Your task to perform on an android device: open app "NewsBreak: Local News & Alerts" (install if not already installed) Image 0: 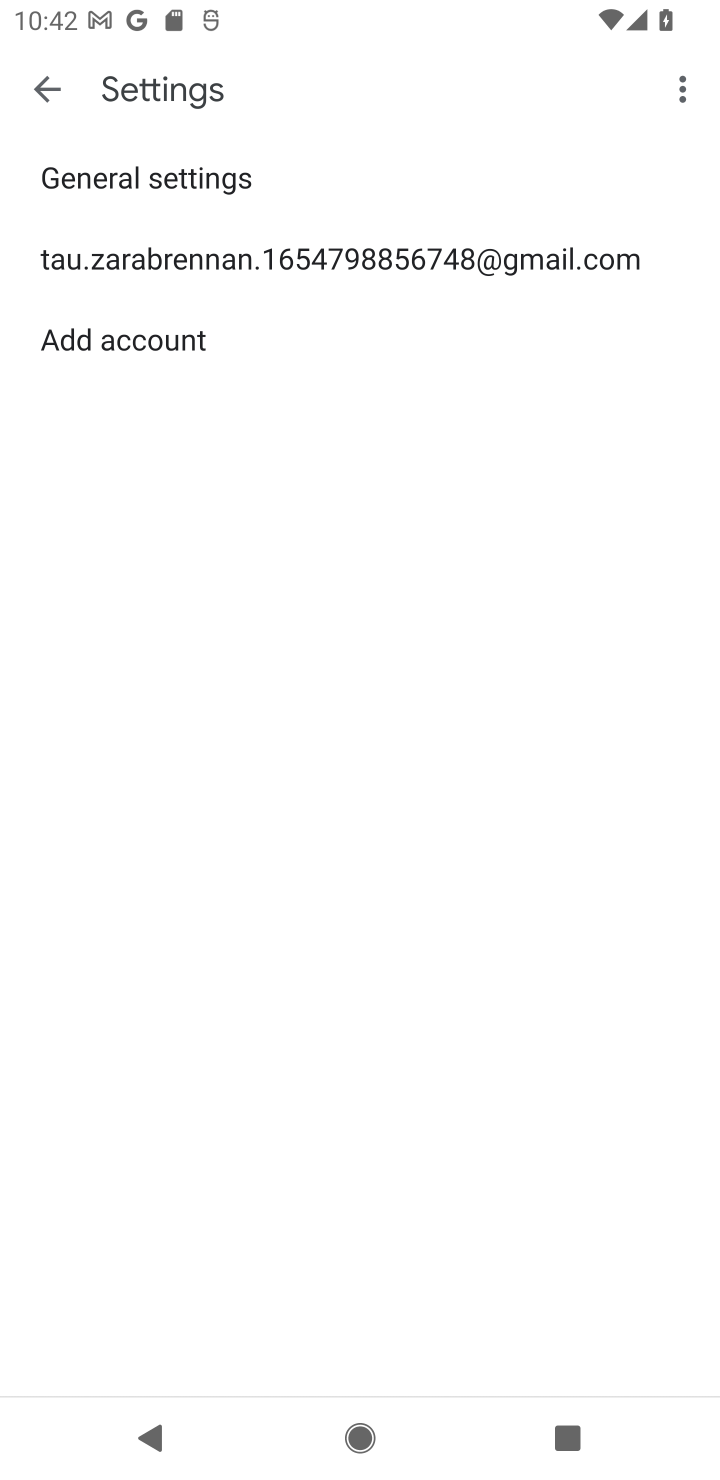
Step 0: press home button
Your task to perform on an android device: open app "NewsBreak: Local News & Alerts" (install if not already installed) Image 1: 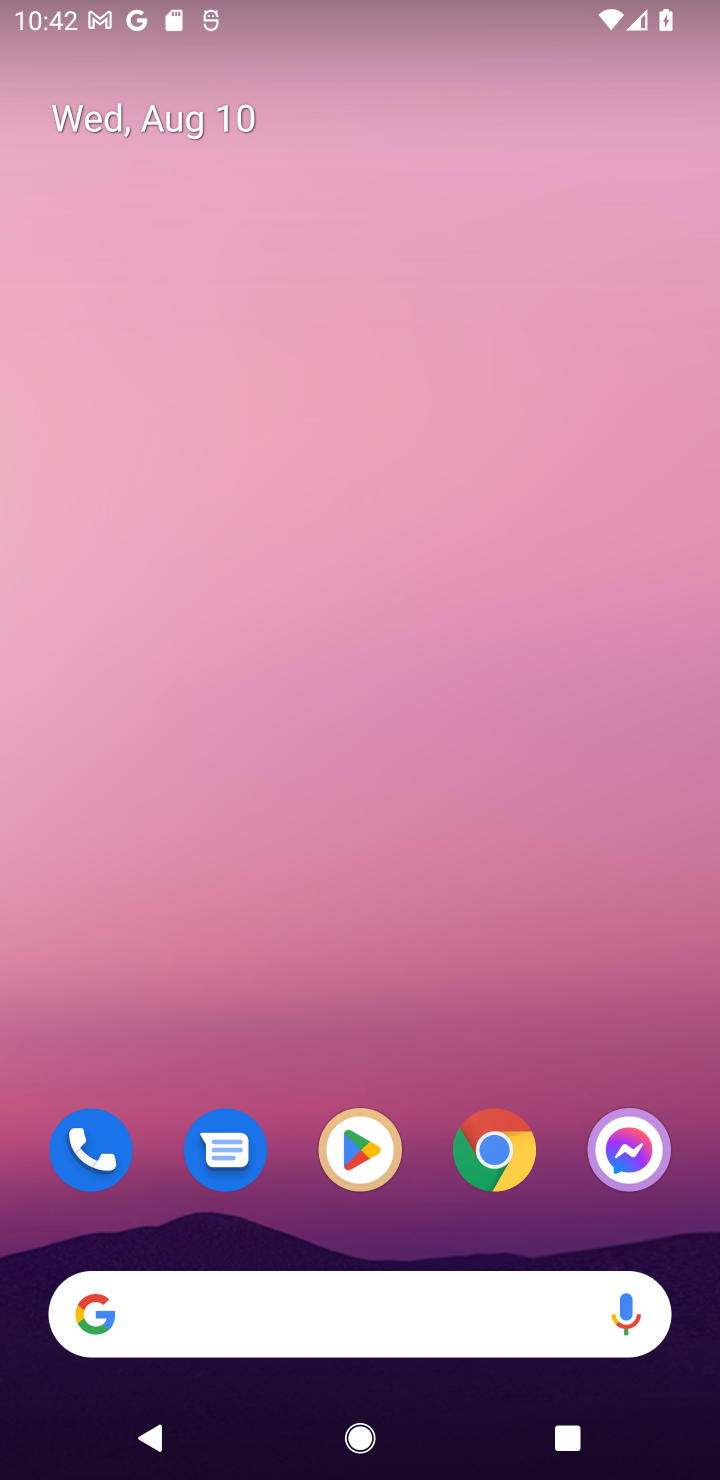
Step 1: click (341, 1147)
Your task to perform on an android device: open app "NewsBreak: Local News & Alerts" (install if not already installed) Image 2: 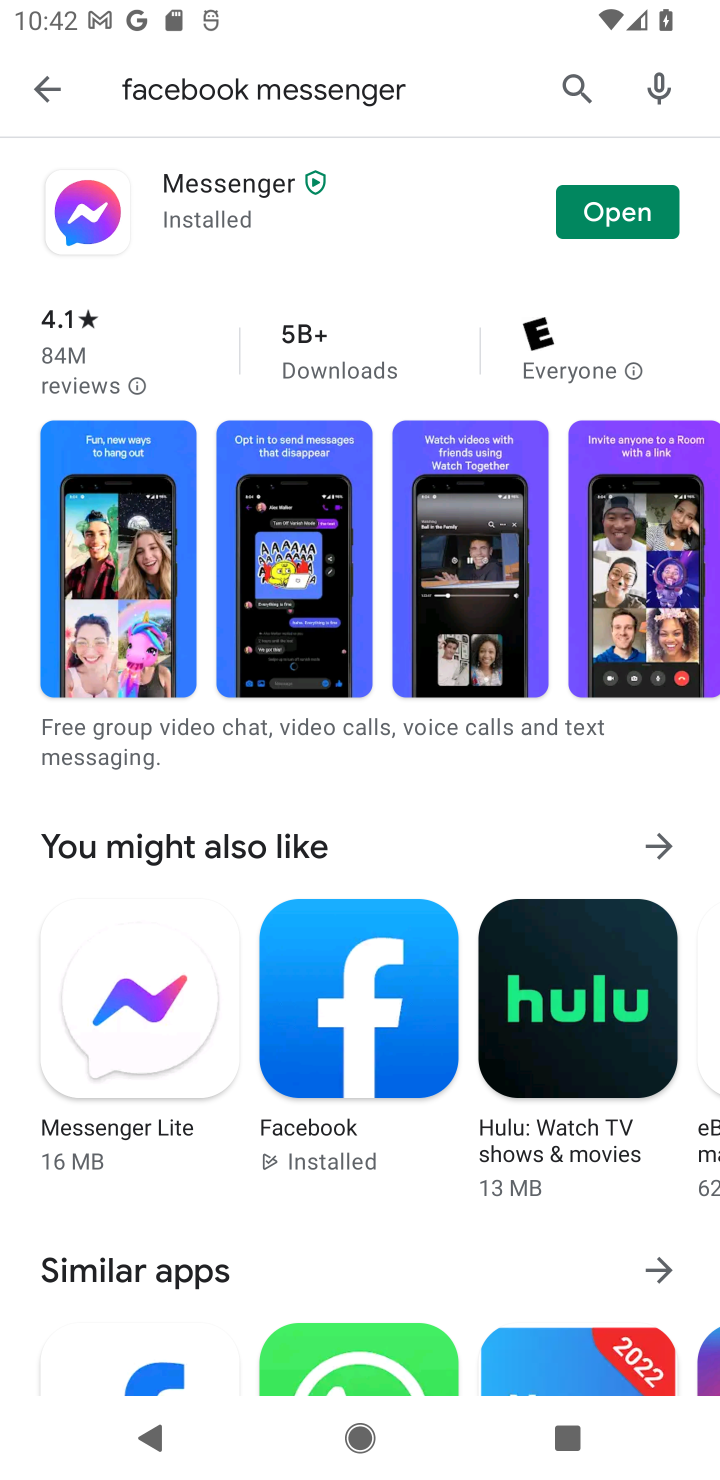
Step 2: click (560, 96)
Your task to perform on an android device: open app "NewsBreak: Local News & Alerts" (install if not already installed) Image 3: 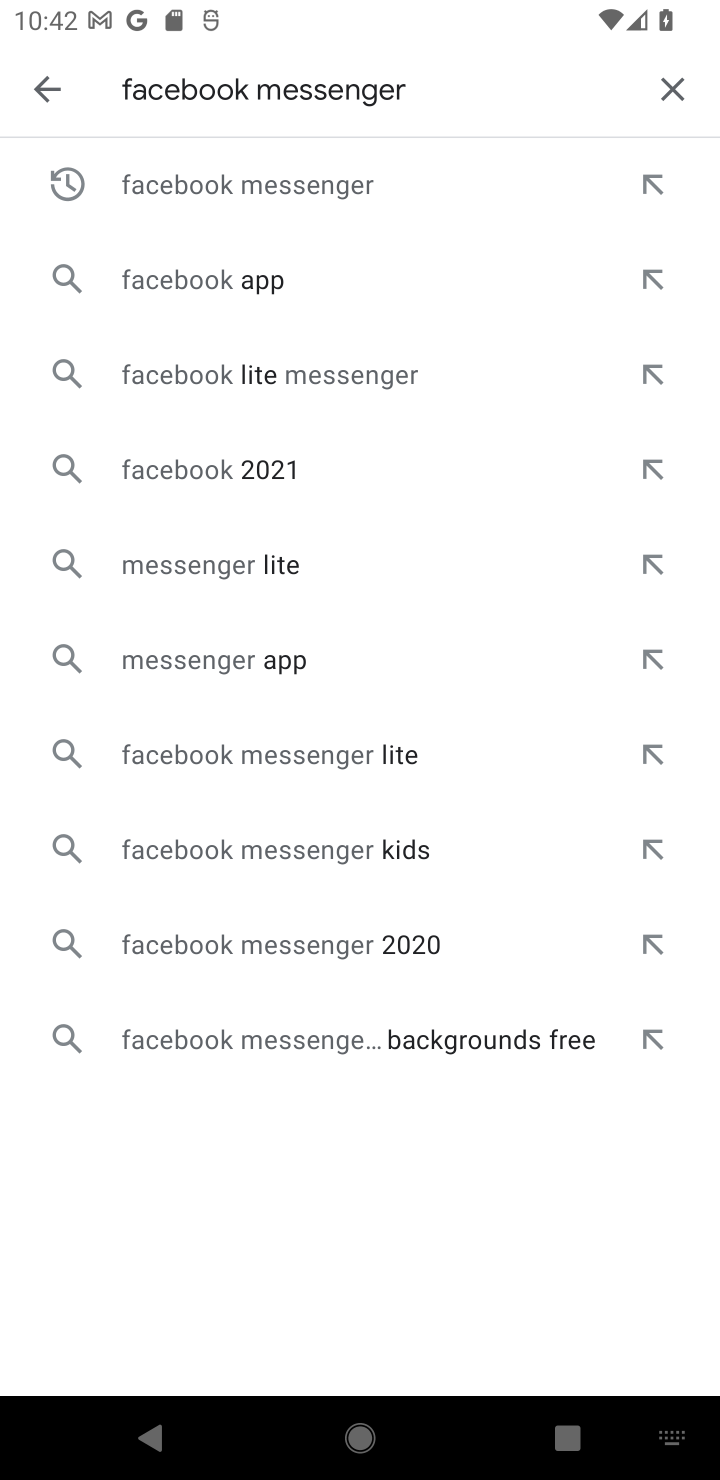
Step 3: click (656, 65)
Your task to perform on an android device: open app "NewsBreak: Local News & Alerts" (install if not already installed) Image 4: 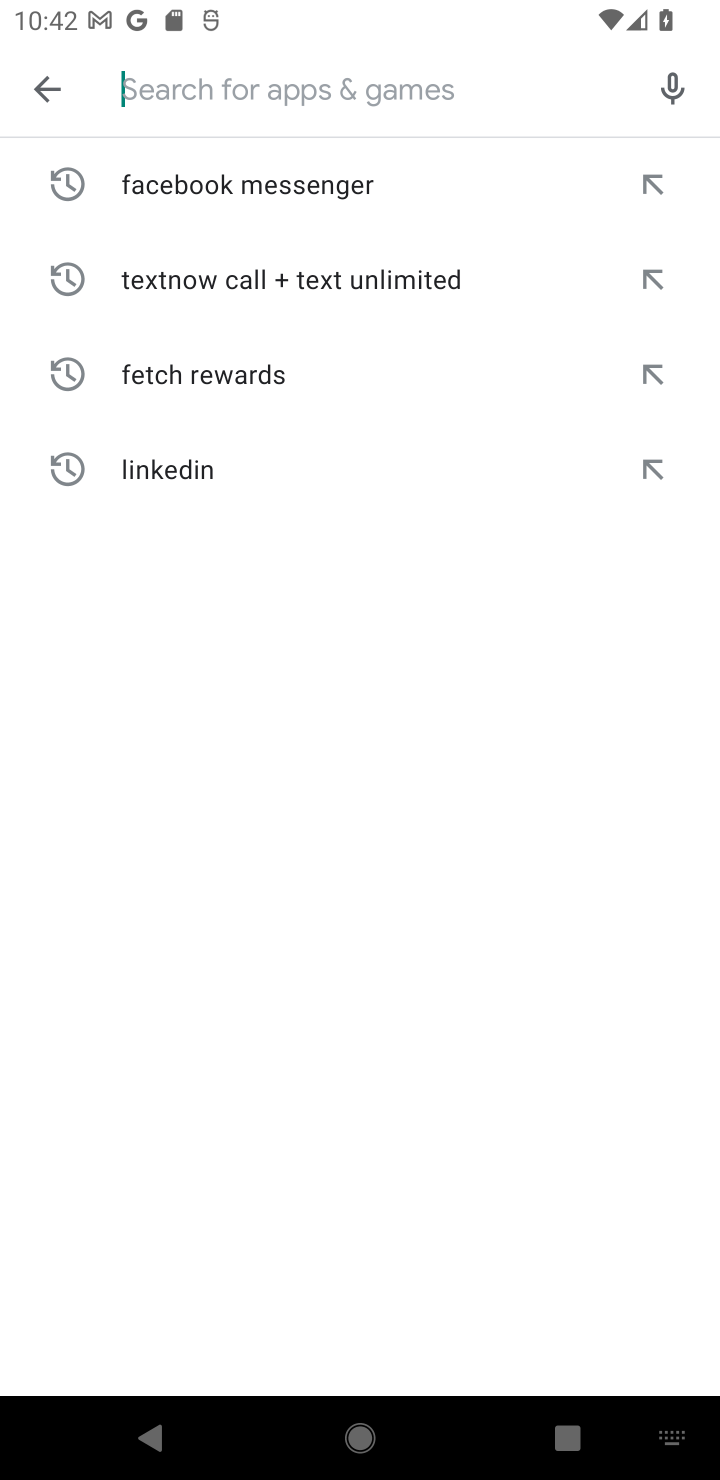
Step 4: type "NewsBreak: Local News & Alerts"
Your task to perform on an android device: open app "NewsBreak: Local News & Alerts" (install if not already installed) Image 5: 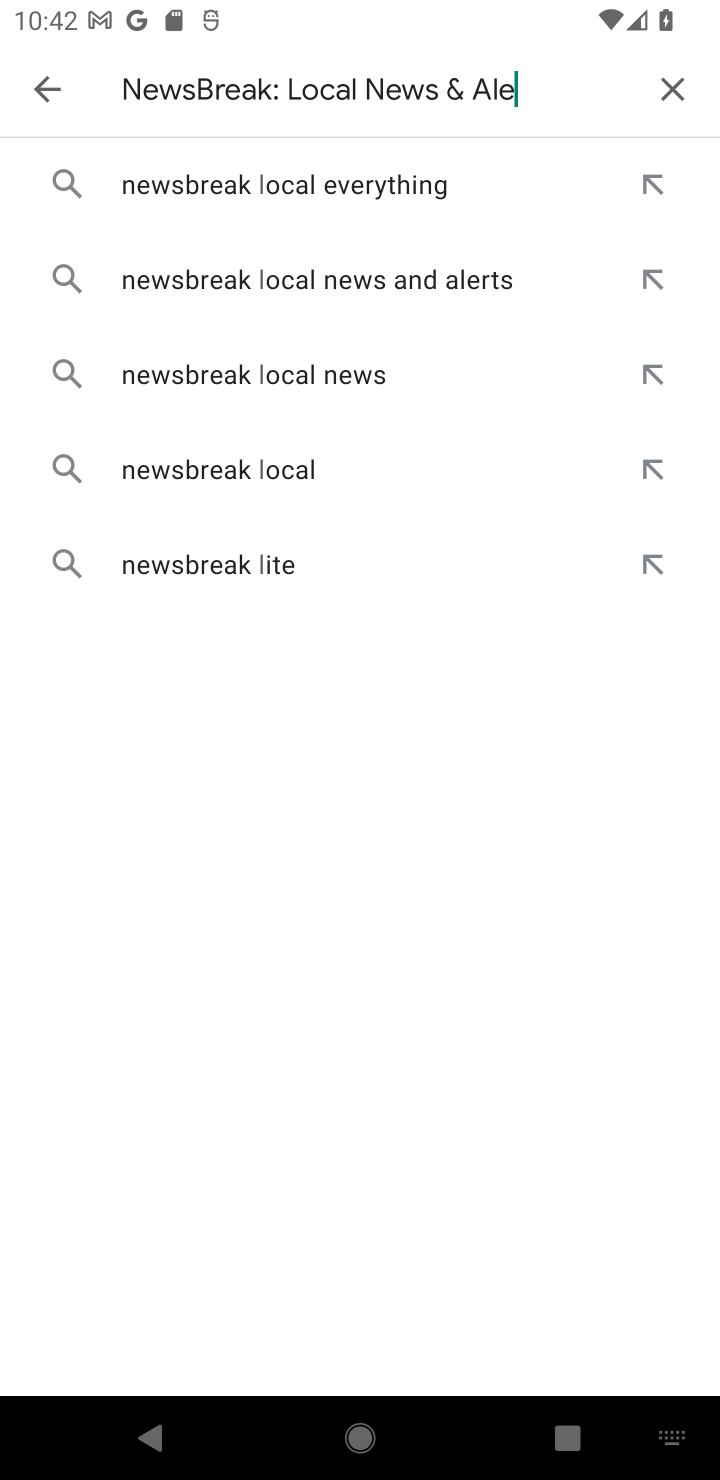
Step 5: type ""
Your task to perform on an android device: open app "NewsBreak: Local News & Alerts" (install if not already installed) Image 6: 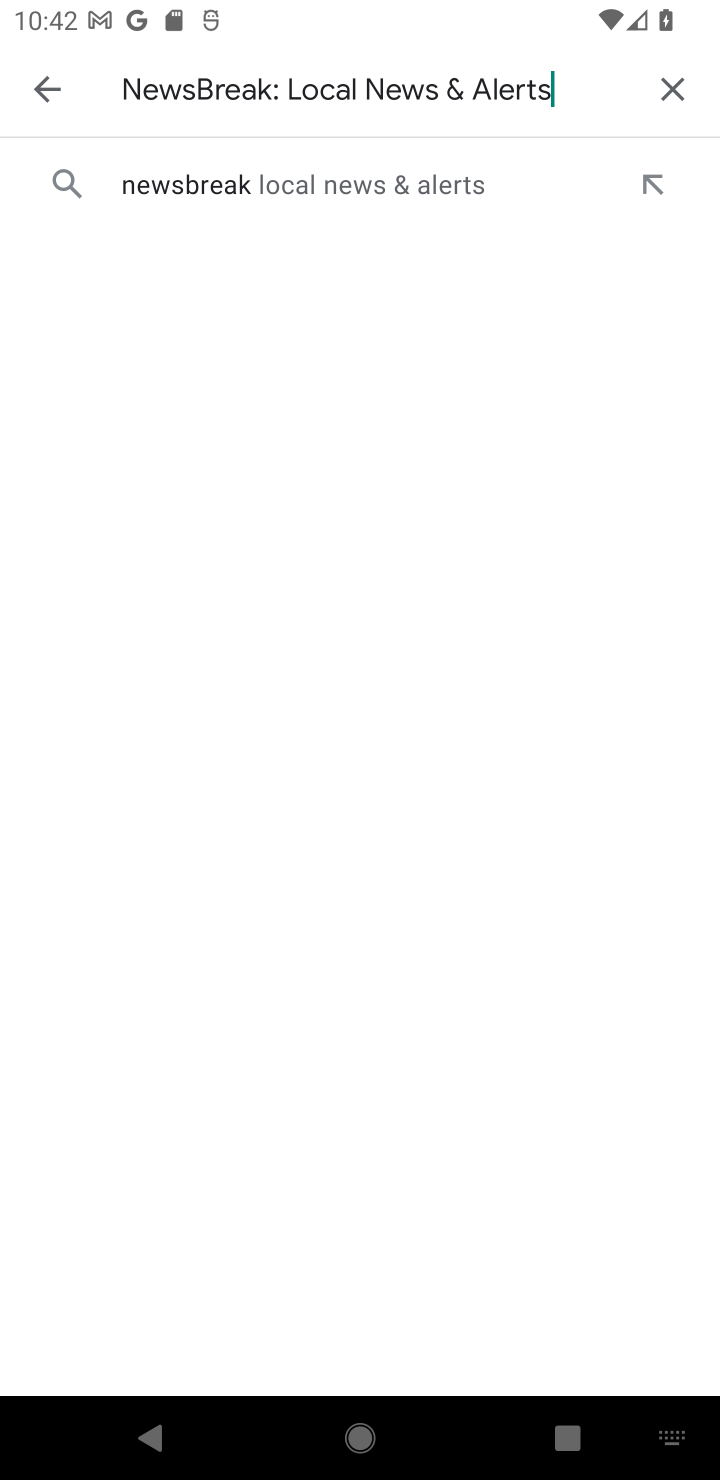
Step 6: click (253, 190)
Your task to perform on an android device: open app "NewsBreak: Local News & Alerts" (install if not already installed) Image 7: 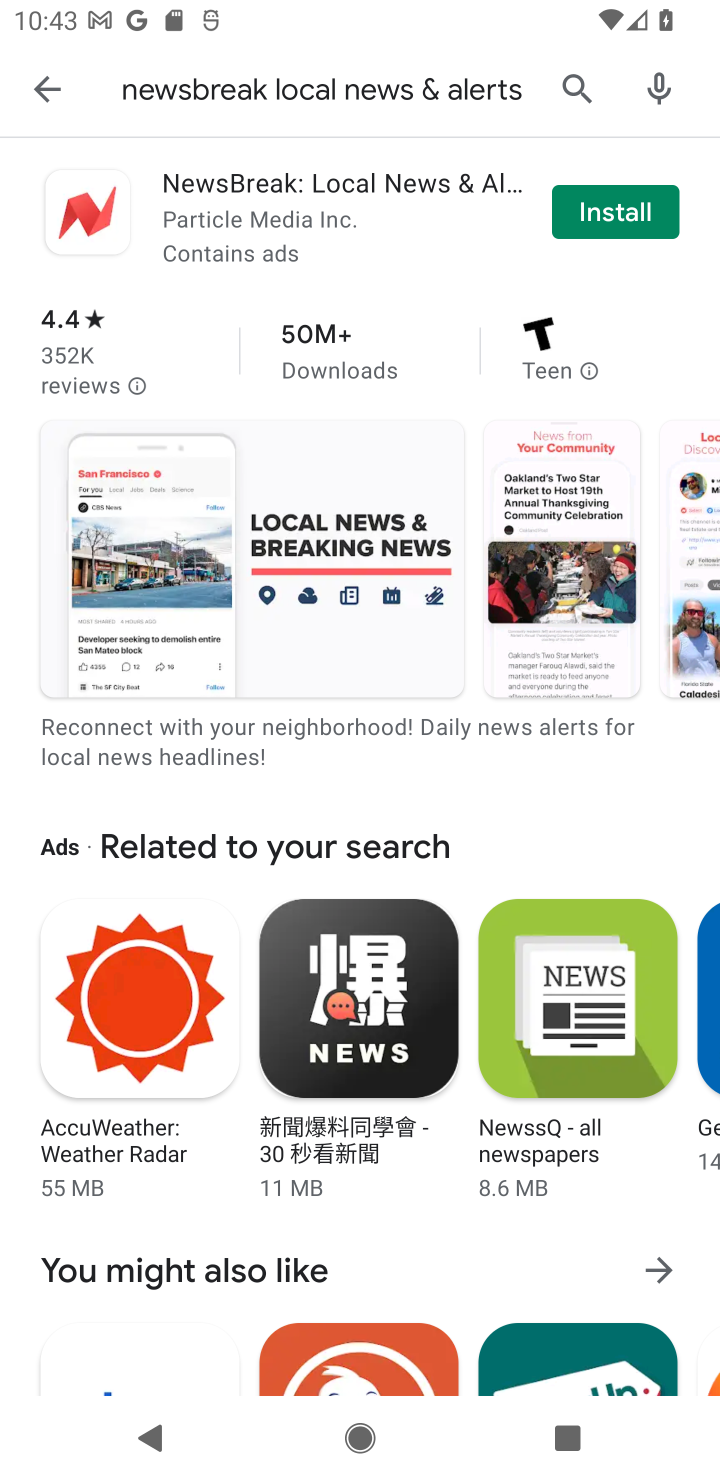
Step 7: click (569, 212)
Your task to perform on an android device: open app "NewsBreak: Local News & Alerts" (install if not already installed) Image 8: 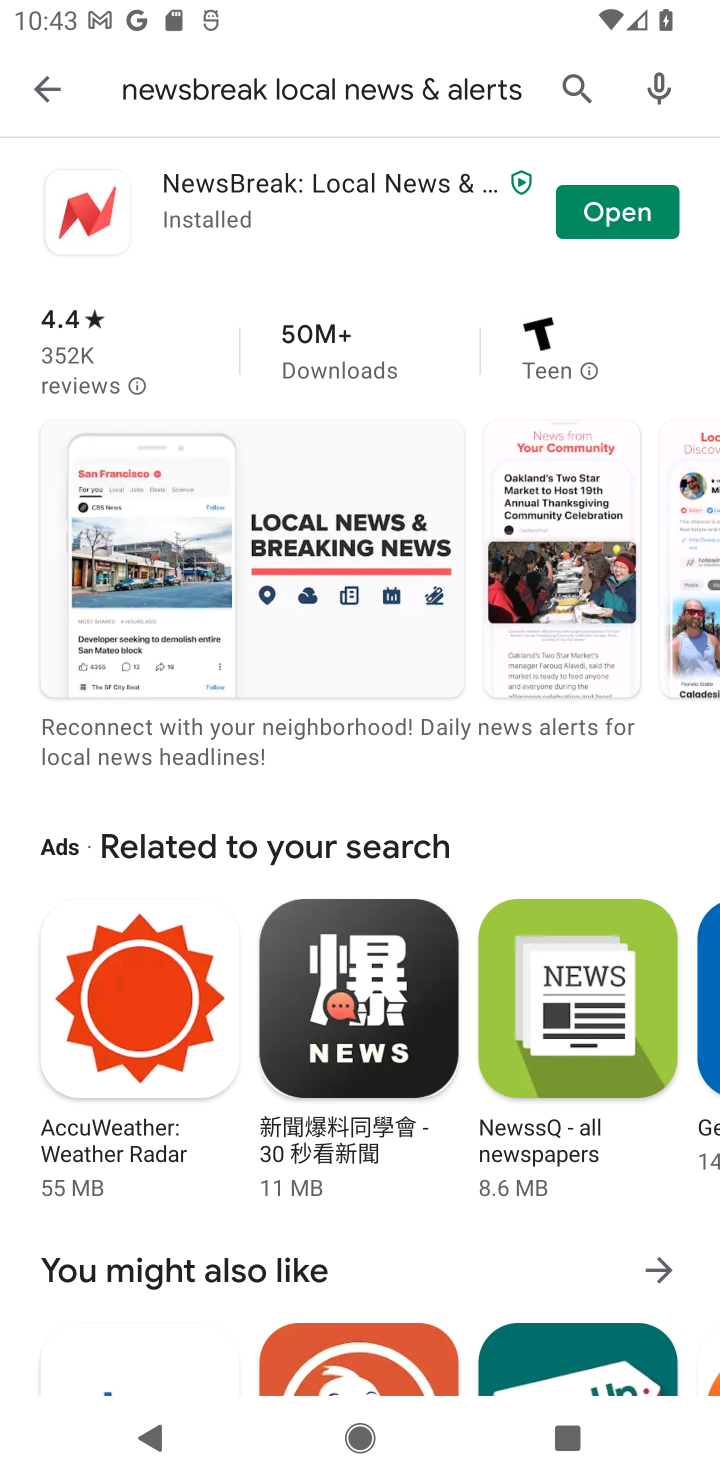
Step 8: click (569, 212)
Your task to perform on an android device: open app "NewsBreak: Local News & Alerts" (install if not already installed) Image 9: 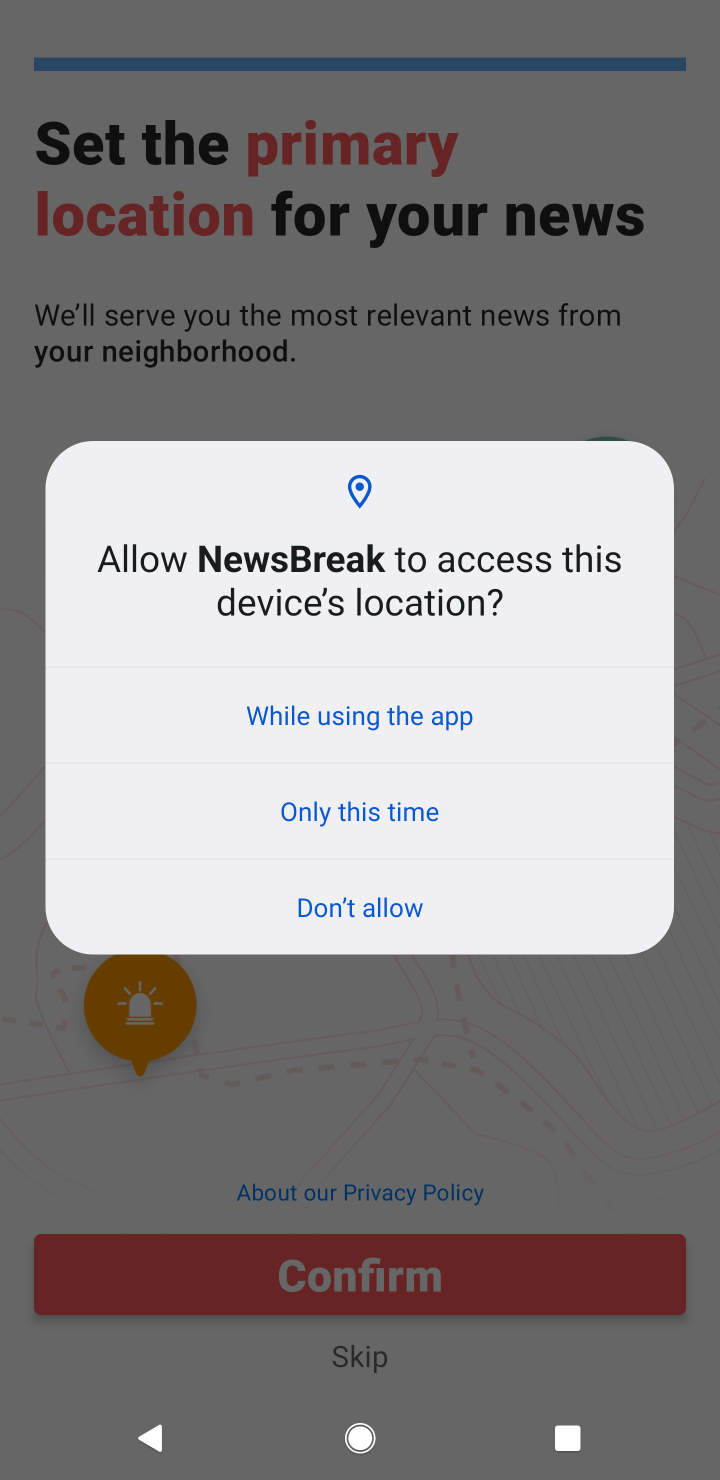
Step 9: task complete